Your task to perform on an android device: Open display settings Image 0: 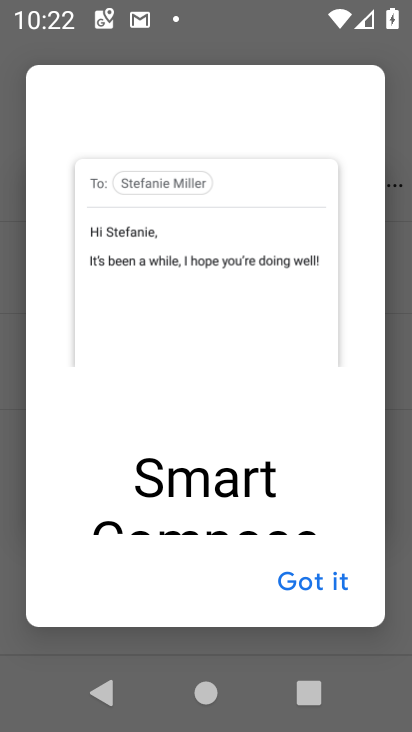
Step 0: press home button
Your task to perform on an android device: Open display settings Image 1: 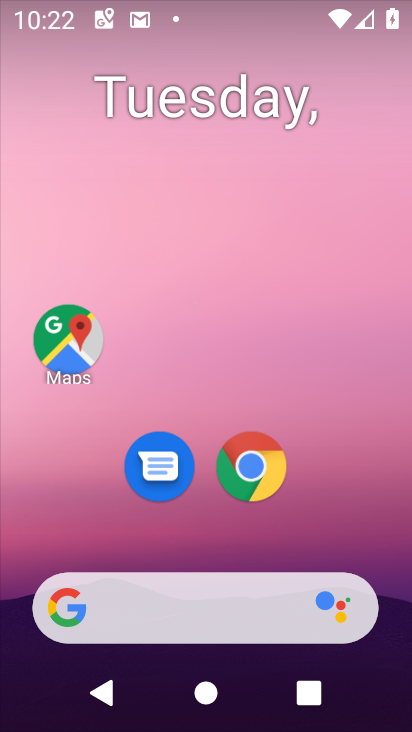
Step 1: drag from (255, 654) to (318, 160)
Your task to perform on an android device: Open display settings Image 2: 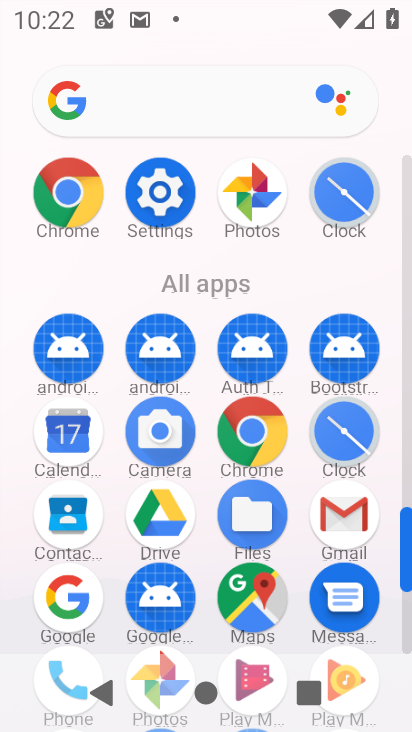
Step 2: click (152, 215)
Your task to perform on an android device: Open display settings Image 3: 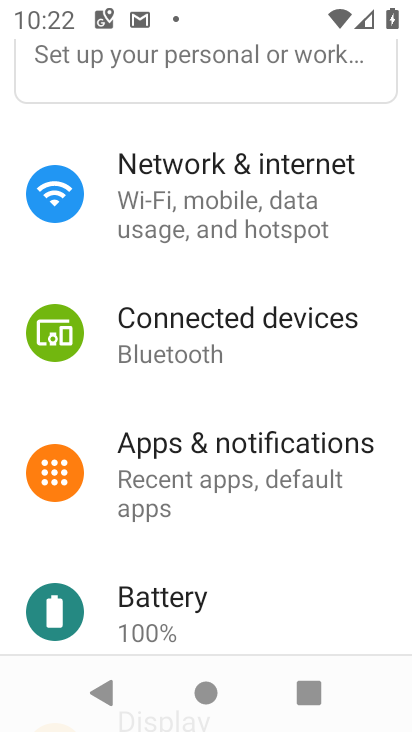
Step 3: drag from (195, 552) to (174, 423)
Your task to perform on an android device: Open display settings Image 4: 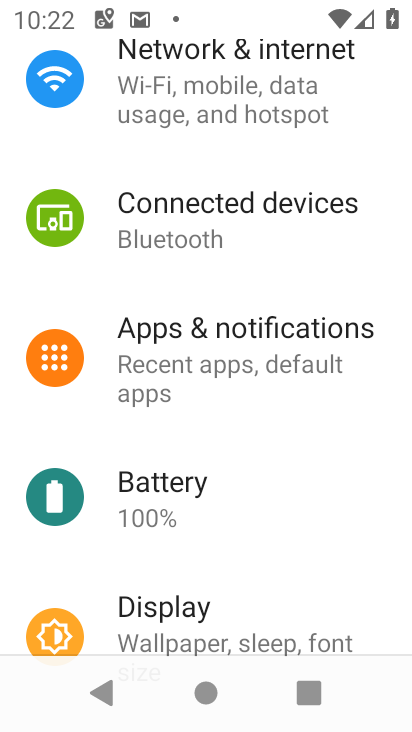
Step 4: click (182, 597)
Your task to perform on an android device: Open display settings Image 5: 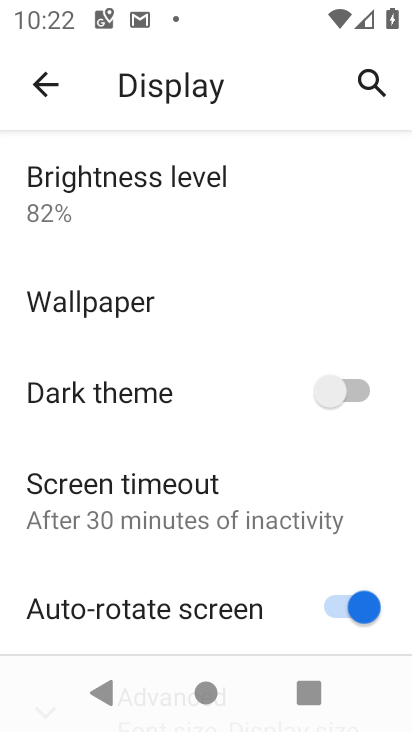
Step 5: task complete